Your task to perform on an android device: Go to accessibility settings Image 0: 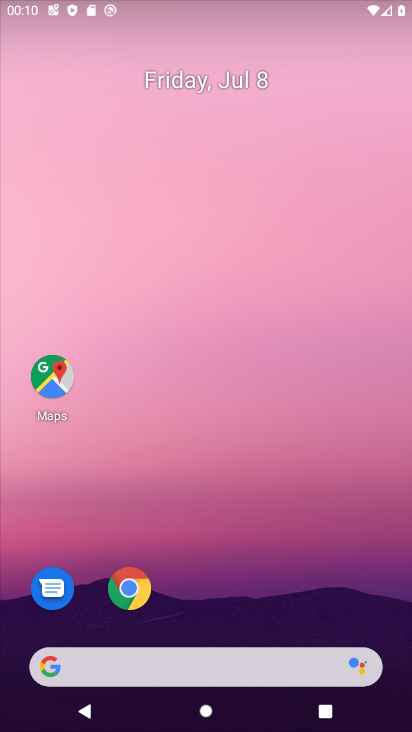
Step 0: press home button
Your task to perform on an android device: Go to accessibility settings Image 1: 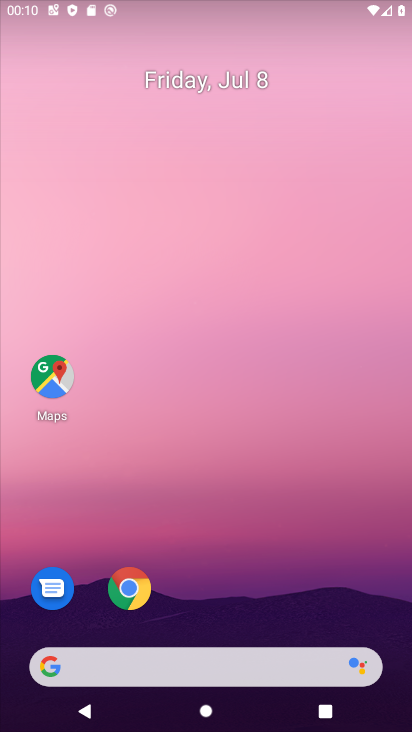
Step 1: click (270, 71)
Your task to perform on an android device: Go to accessibility settings Image 2: 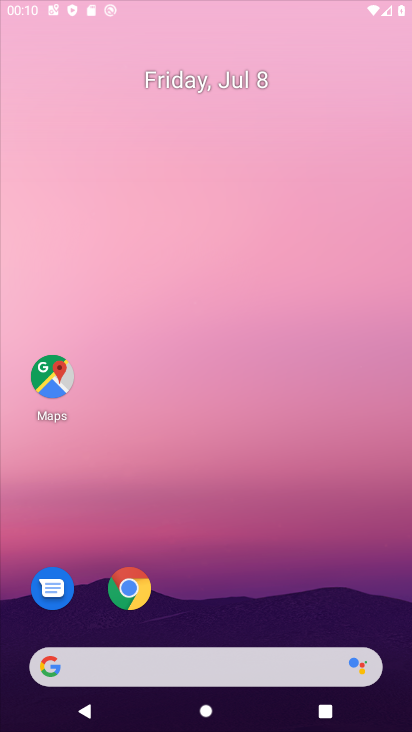
Step 2: drag from (205, 625) to (232, 25)
Your task to perform on an android device: Go to accessibility settings Image 3: 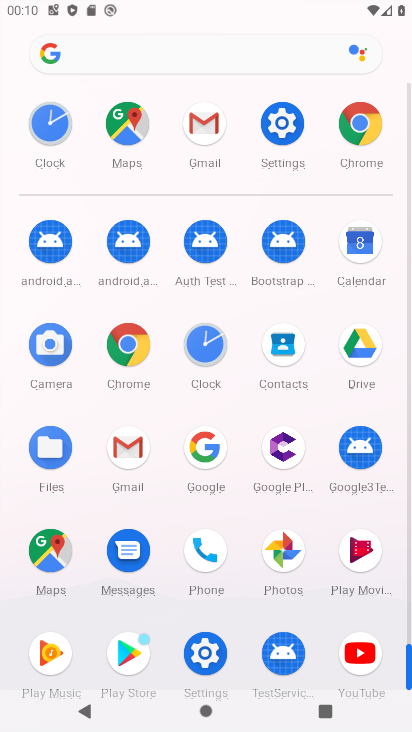
Step 3: click (281, 122)
Your task to perform on an android device: Go to accessibility settings Image 4: 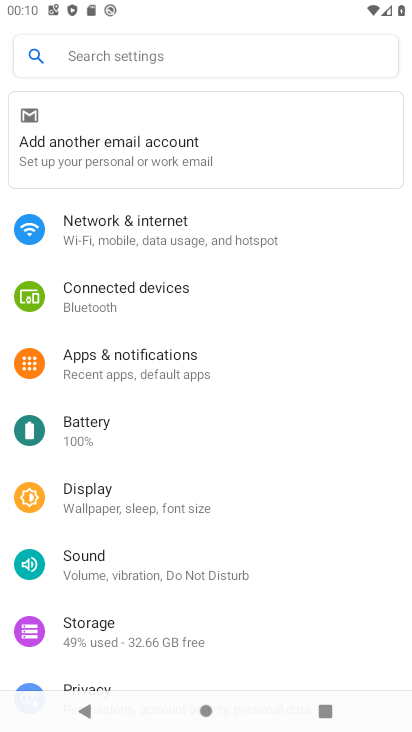
Step 4: drag from (197, 464) to (240, 271)
Your task to perform on an android device: Go to accessibility settings Image 5: 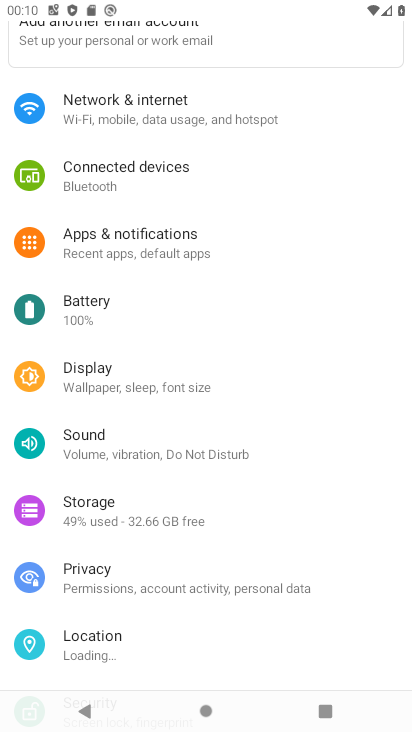
Step 5: drag from (178, 610) to (216, 234)
Your task to perform on an android device: Go to accessibility settings Image 6: 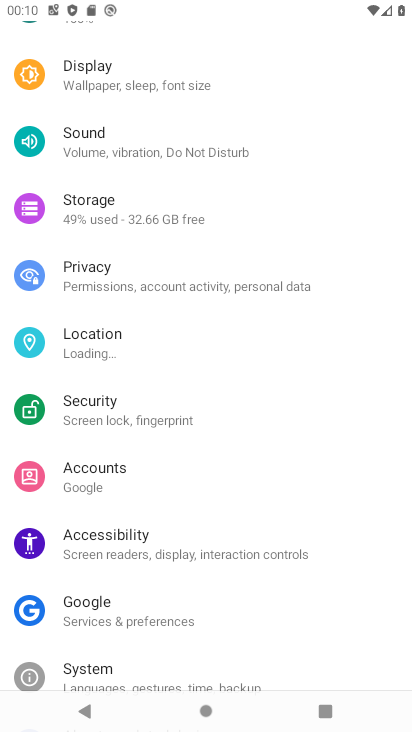
Step 6: drag from (226, 206) to (235, 726)
Your task to perform on an android device: Go to accessibility settings Image 7: 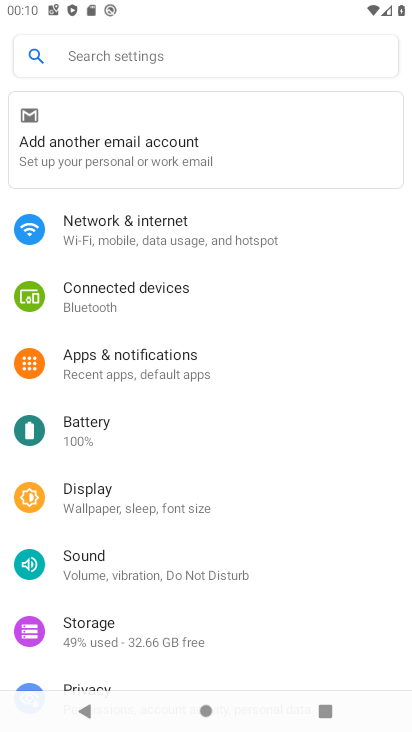
Step 7: drag from (172, 273) to (291, 729)
Your task to perform on an android device: Go to accessibility settings Image 8: 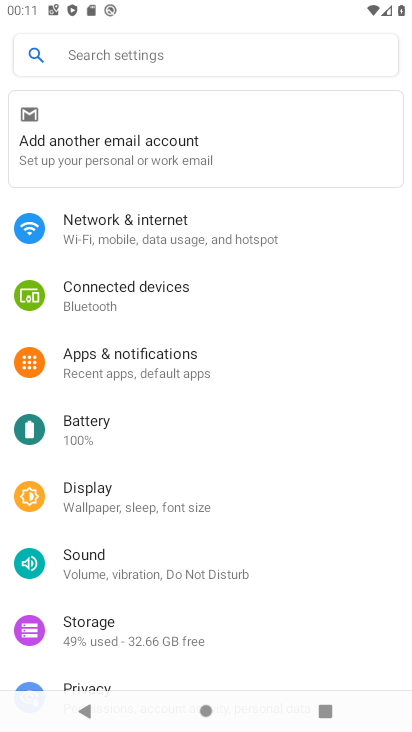
Step 8: drag from (194, 260) to (400, 607)
Your task to perform on an android device: Go to accessibility settings Image 9: 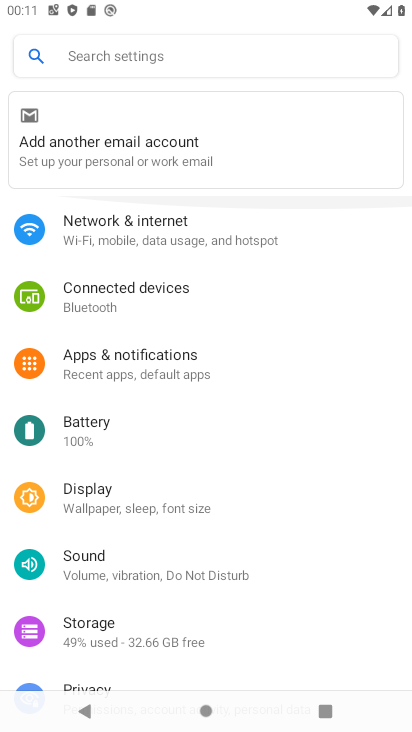
Step 9: drag from (177, 586) to (229, 232)
Your task to perform on an android device: Go to accessibility settings Image 10: 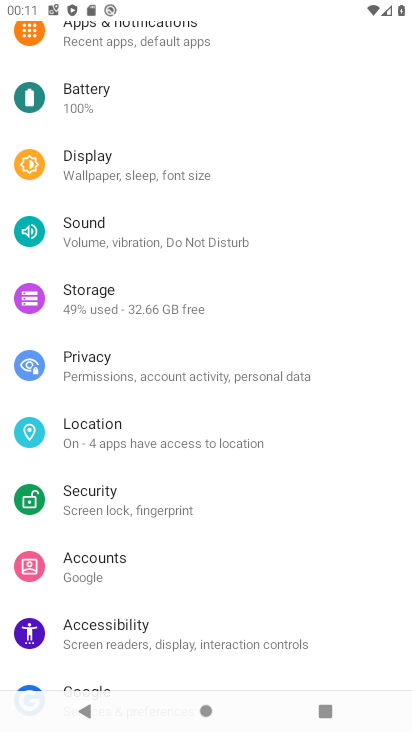
Step 10: drag from (161, 607) to (181, 406)
Your task to perform on an android device: Go to accessibility settings Image 11: 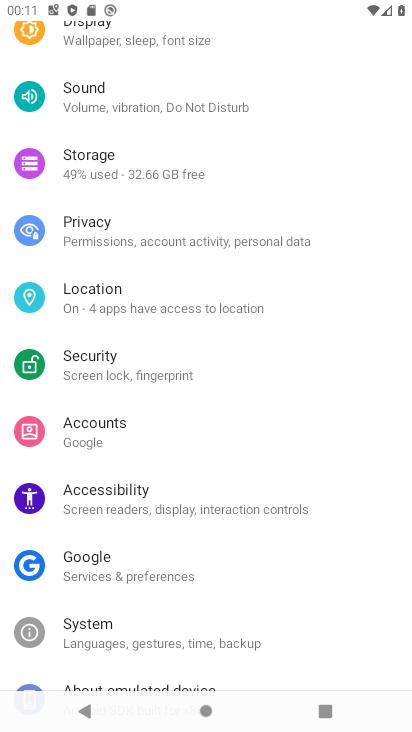
Step 11: click (160, 492)
Your task to perform on an android device: Go to accessibility settings Image 12: 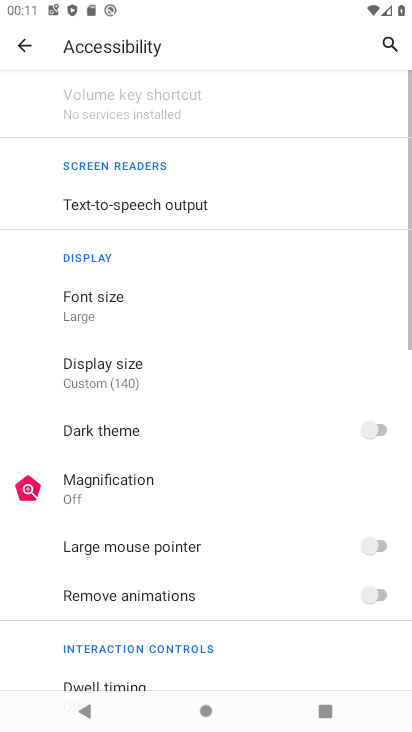
Step 12: drag from (189, 547) to (365, 191)
Your task to perform on an android device: Go to accessibility settings Image 13: 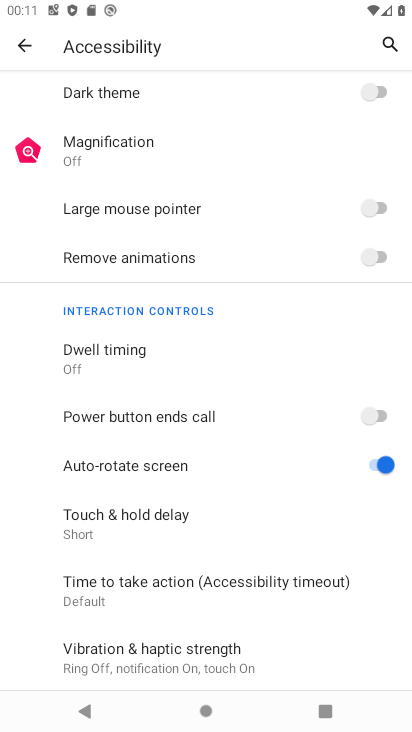
Step 13: drag from (196, 603) to (202, 148)
Your task to perform on an android device: Go to accessibility settings Image 14: 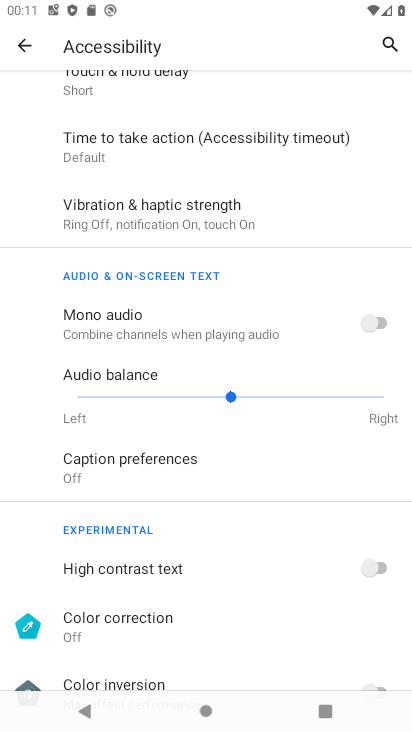
Step 14: drag from (201, 103) to (322, 712)
Your task to perform on an android device: Go to accessibility settings Image 15: 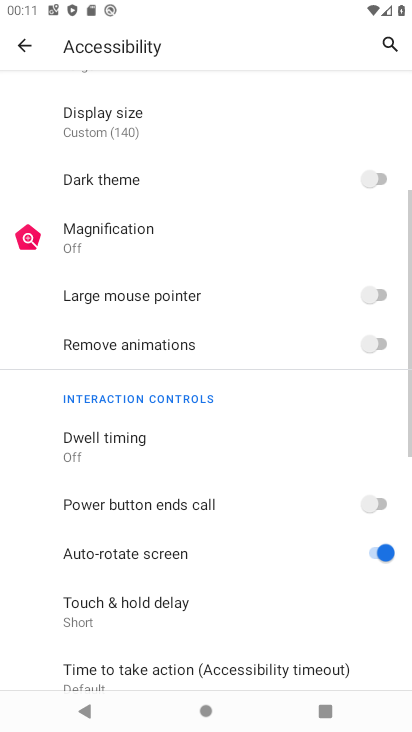
Step 15: drag from (159, 211) to (279, 723)
Your task to perform on an android device: Go to accessibility settings Image 16: 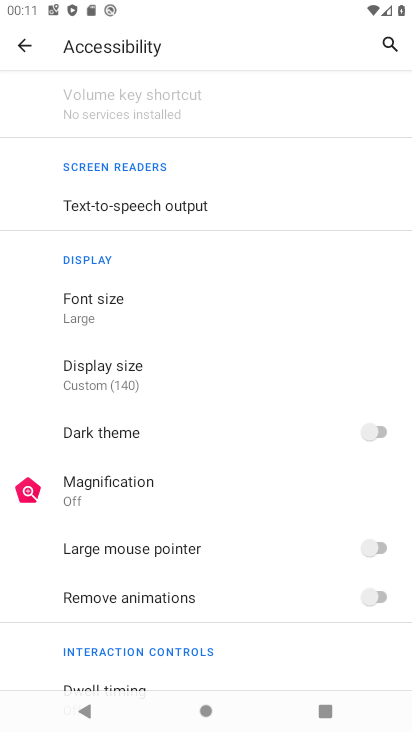
Step 16: drag from (153, 167) to (293, 702)
Your task to perform on an android device: Go to accessibility settings Image 17: 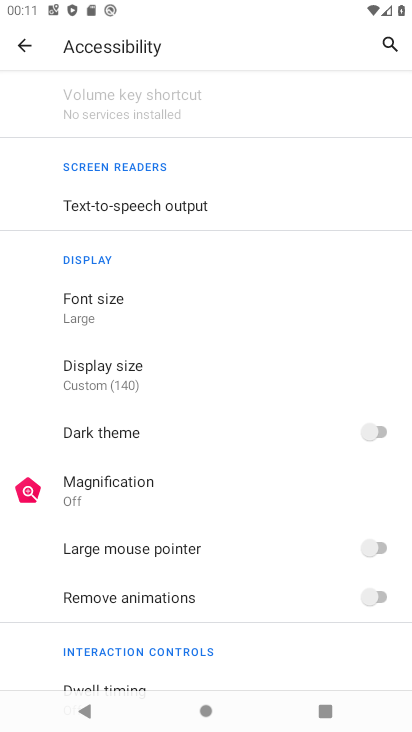
Step 17: drag from (201, 466) to (229, 182)
Your task to perform on an android device: Go to accessibility settings Image 18: 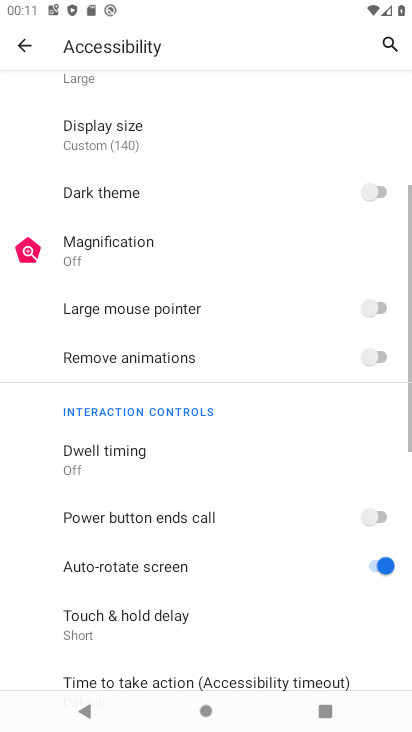
Step 18: drag from (227, 189) to (220, 729)
Your task to perform on an android device: Go to accessibility settings Image 19: 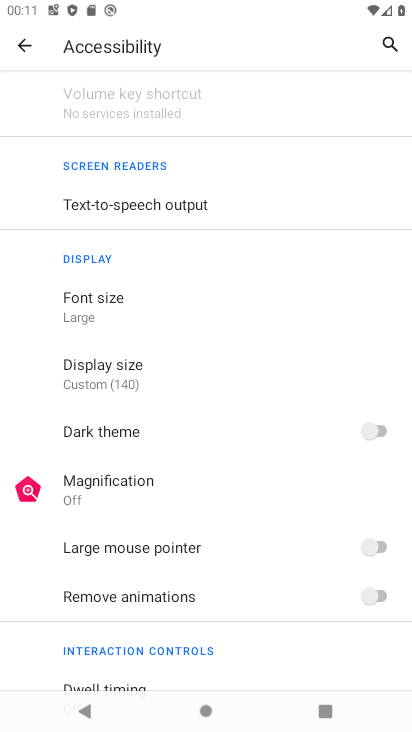
Step 19: drag from (320, 297) to (312, 727)
Your task to perform on an android device: Go to accessibility settings Image 20: 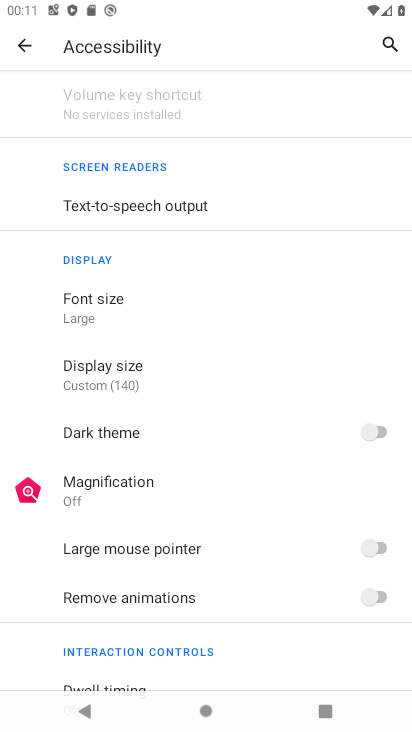
Step 20: click (150, 46)
Your task to perform on an android device: Go to accessibility settings Image 21: 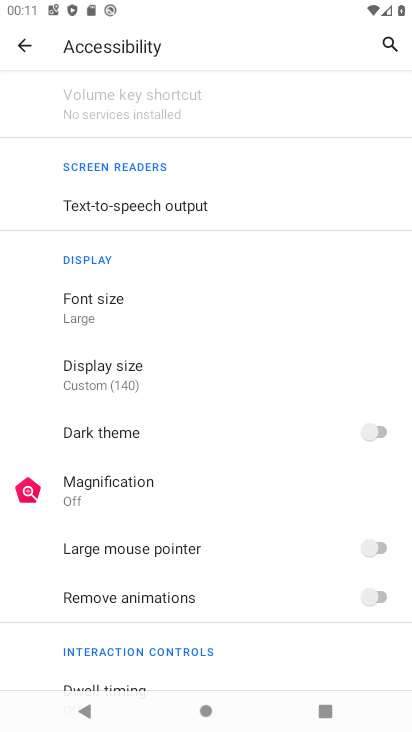
Step 21: drag from (221, 321) to (247, 556)
Your task to perform on an android device: Go to accessibility settings Image 22: 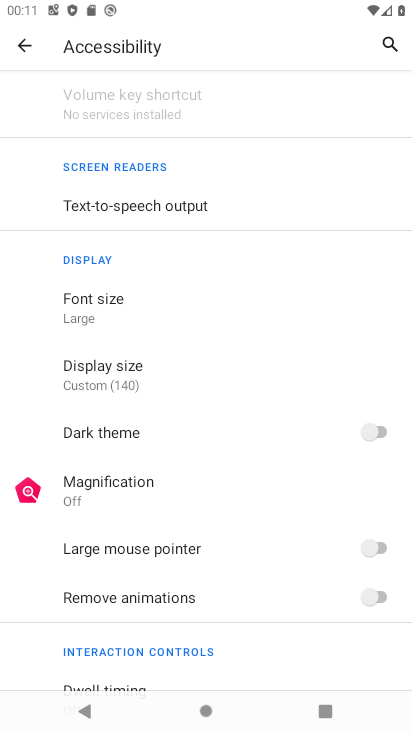
Step 22: click (211, 46)
Your task to perform on an android device: Go to accessibility settings Image 23: 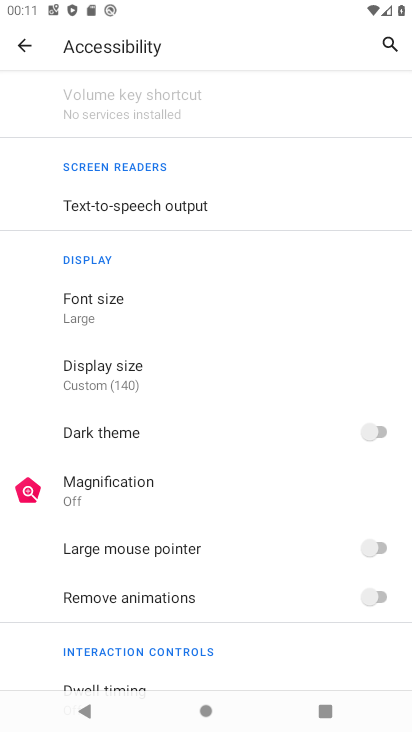
Step 23: click (194, 56)
Your task to perform on an android device: Go to accessibility settings Image 24: 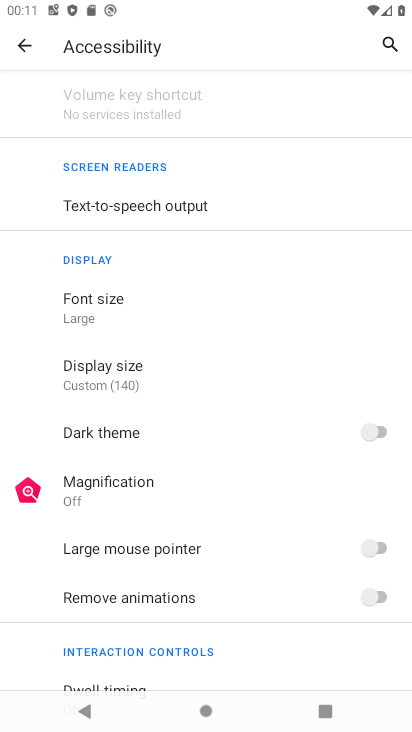
Step 24: task complete